Your task to perform on an android device: Open Chrome and go to the settings page Image 0: 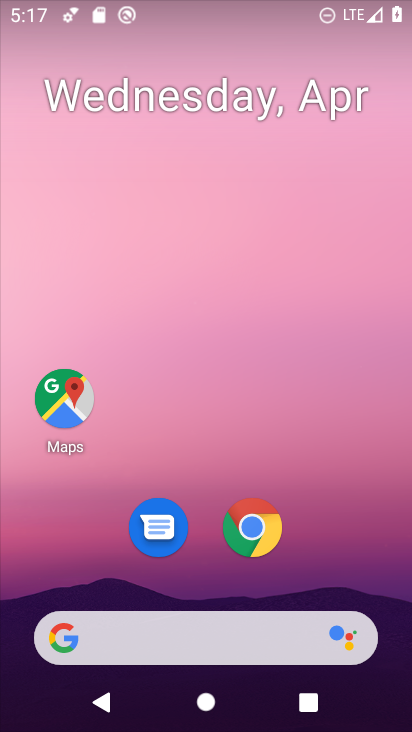
Step 0: click (266, 546)
Your task to perform on an android device: Open Chrome and go to the settings page Image 1: 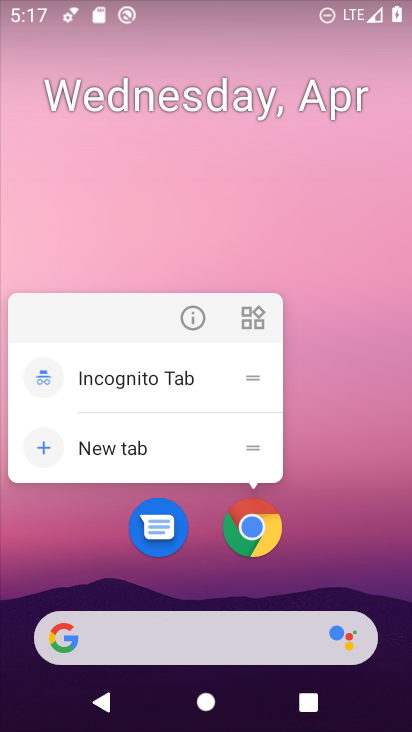
Step 1: click (266, 546)
Your task to perform on an android device: Open Chrome and go to the settings page Image 2: 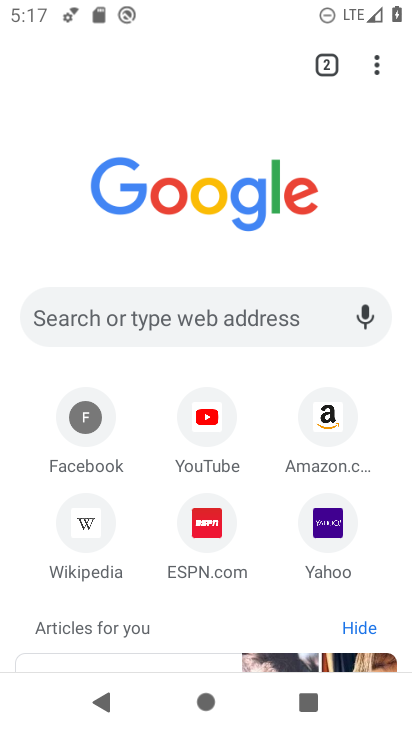
Step 2: click (377, 64)
Your task to perform on an android device: Open Chrome and go to the settings page Image 3: 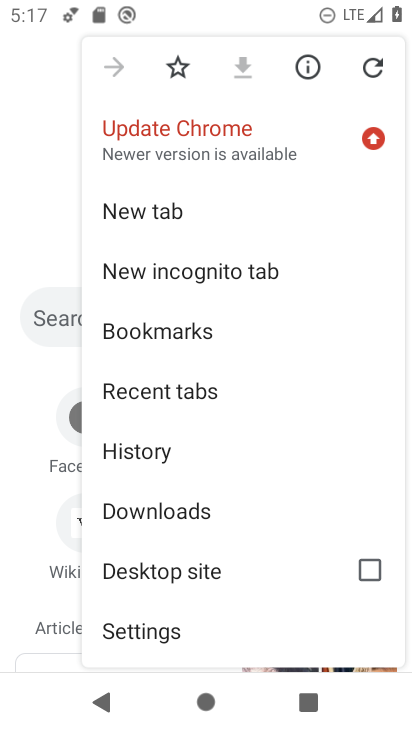
Step 3: click (168, 632)
Your task to perform on an android device: Open Chrome and go to the settings page Image 4: 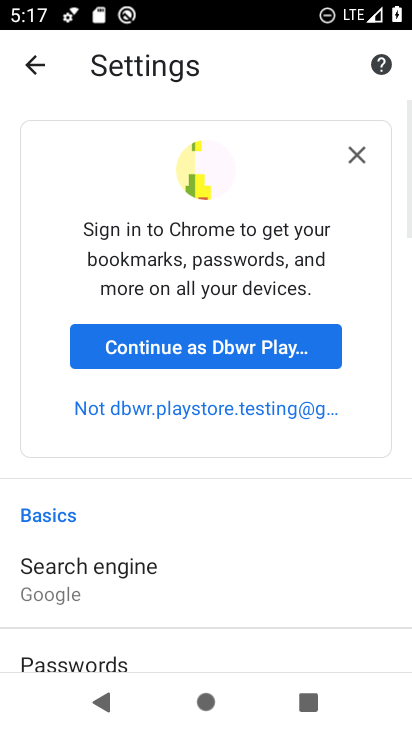
Step 4: task complete